Your task to perform on an android device: turn off sleep mode Image 0: 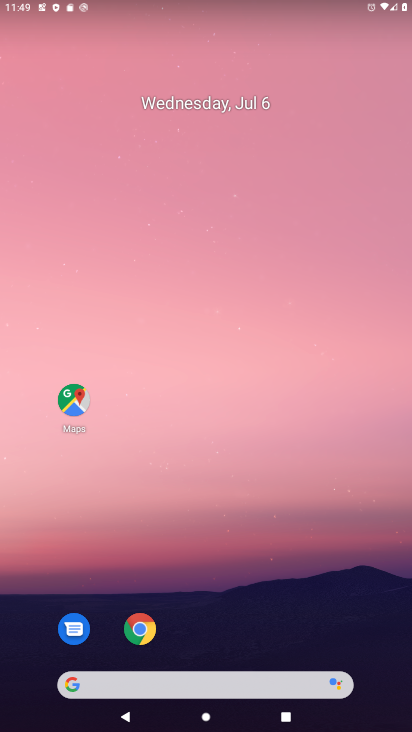
Step 0: drag from (240, 625) to (273, 227)
Your task to perform on an android device: turn off sleep mode Image 1: 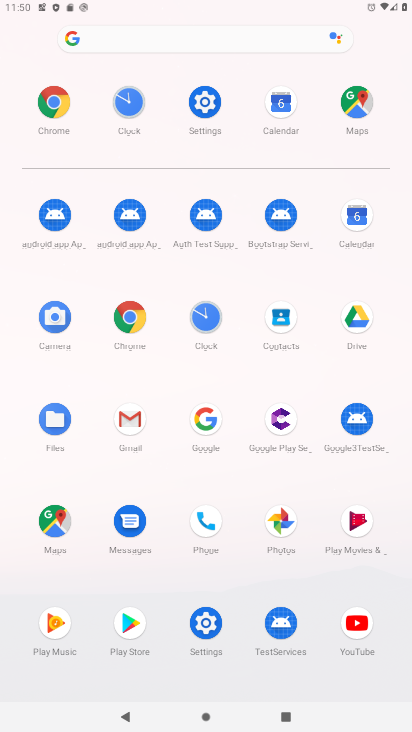
Step 1: click (204, 103)
Your task to perform on an android device: turn off sleep mode Image 2: 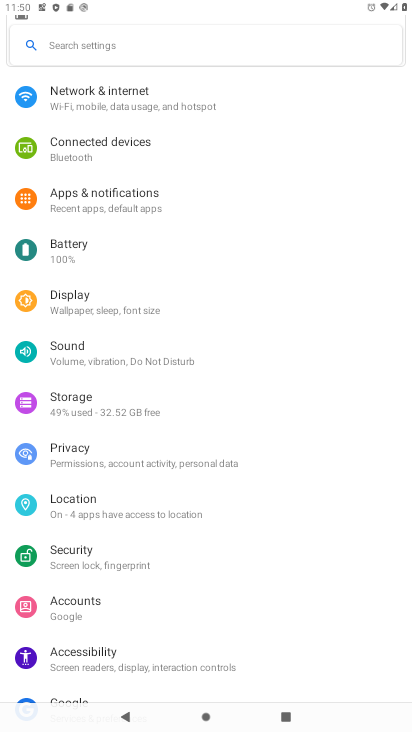
Step 2: click (131, 317)
Your task to perform on an android device: turn off sleep mode Image 3: 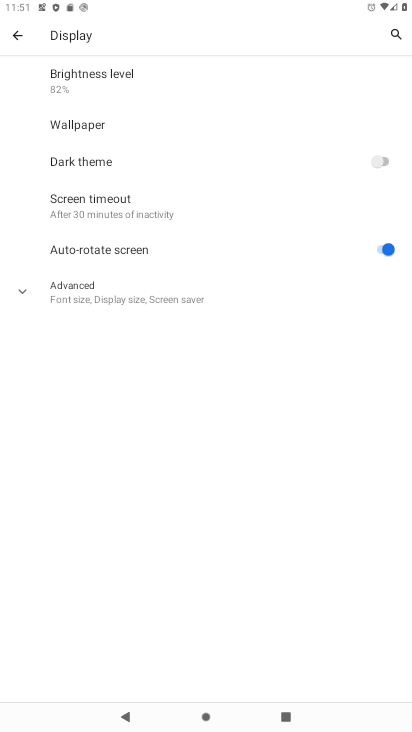
Step 3: click (127, 303)
Your task to perform on an android device: turn off sleep mode Image 4: 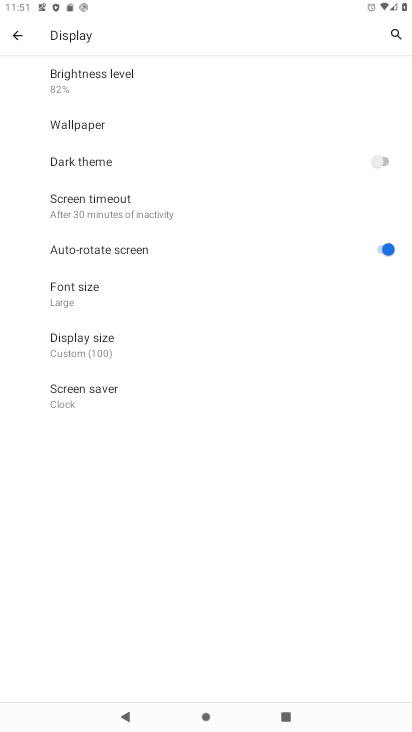
Step 4: click (101, 207)
Your task to perform on an android device: turn off sleep mode Image 5: 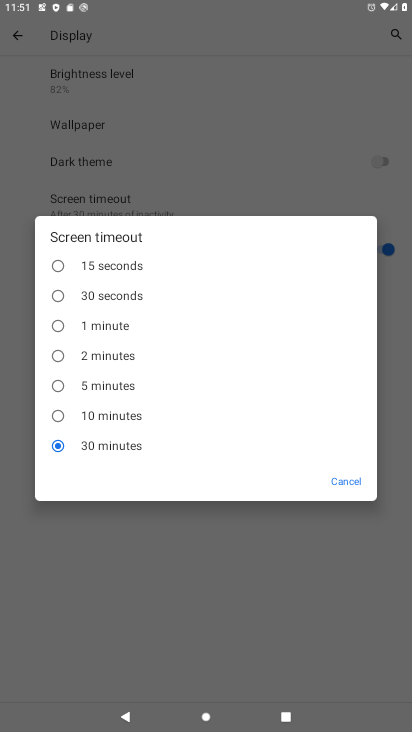
Step 5: task complete